Your task to perform on an android device: Search for sushi restaurants on Maps Image 0: 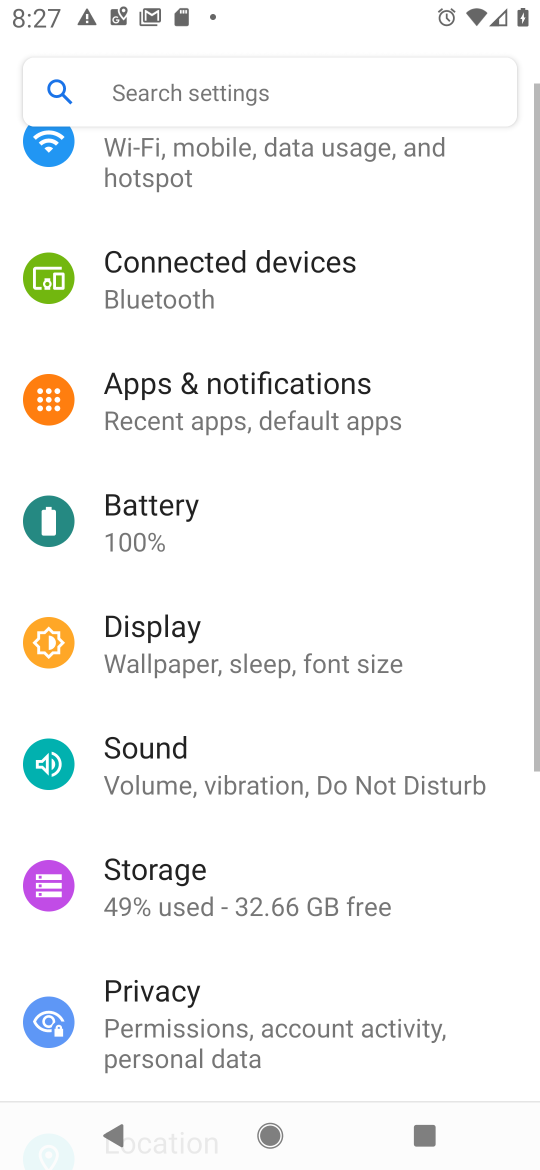
Step 0: drag from (498, 979) to (267, 324)
Your task to perform on an android device: Search for sushi restaurants on Maps Image 1: 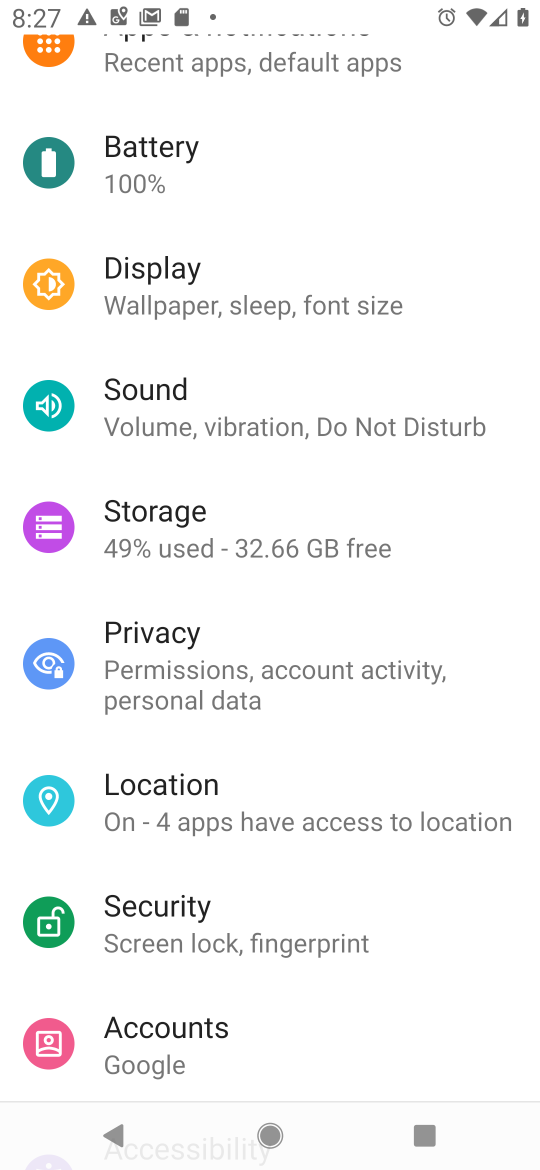
Step 1: press home button
Your task to perform on an android device: Search for sushi restaurants on Maps Image 2: 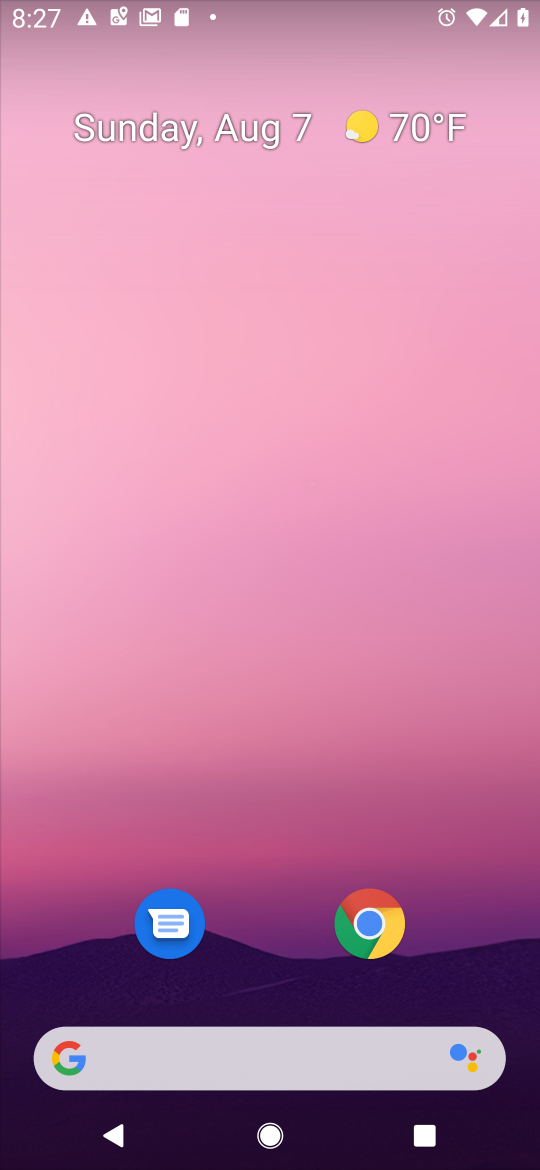
Step 2: drag from (478, 942) to (253, 31)
Your task to perform on an android device: Search for sushi restaurants on Maps Image 3: 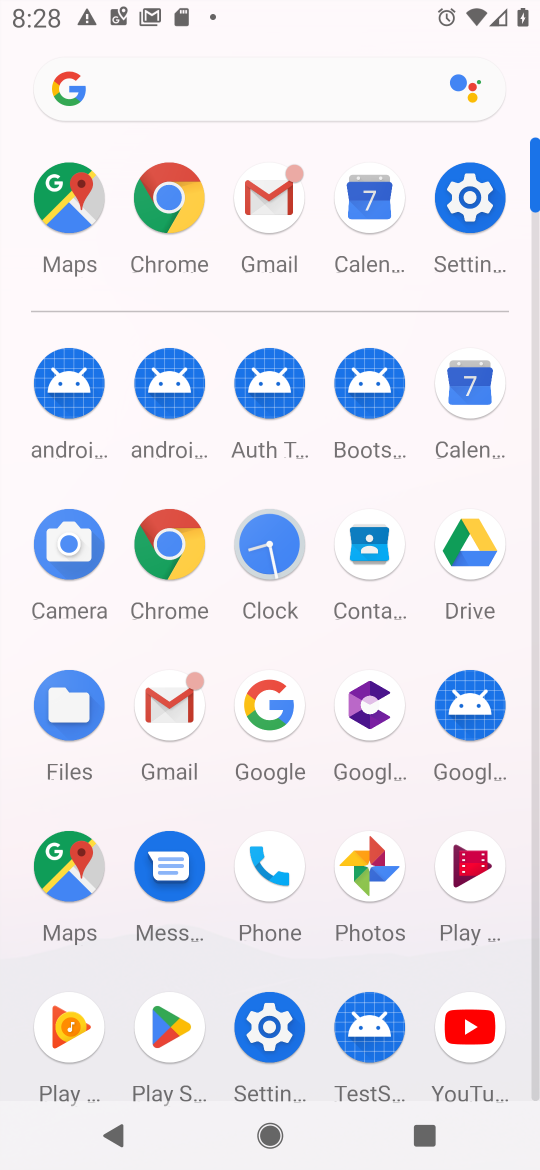
Step 3: click (78, 874)
Your task to perform on an android device: Search for sushi restaurants on Maps Image 4: 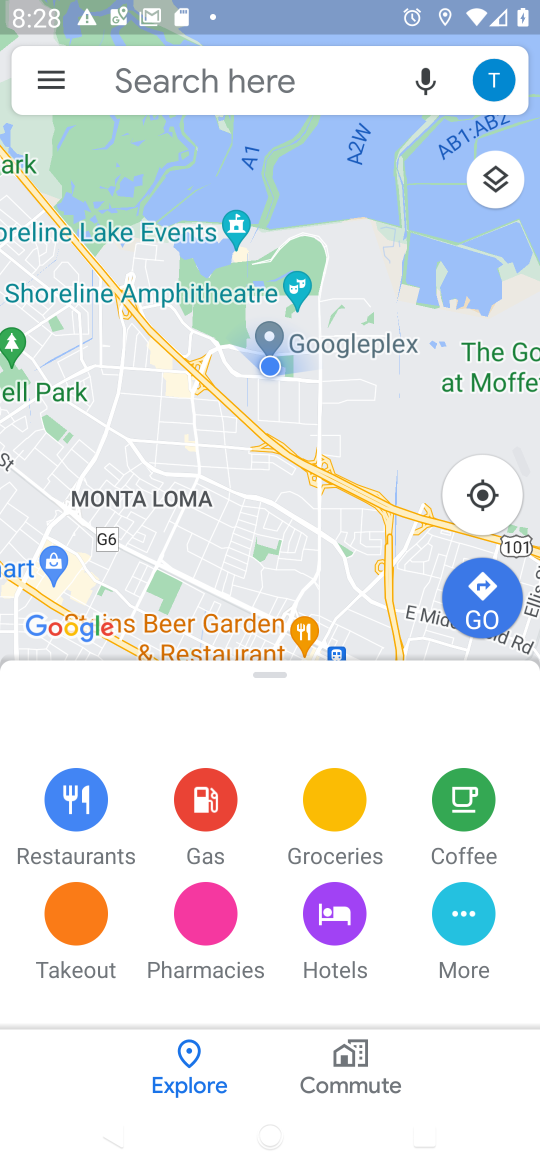
Step 4: click (194, 86)
Your task to perform on an android device: Search for sushi restaurants on Maps Image 5: 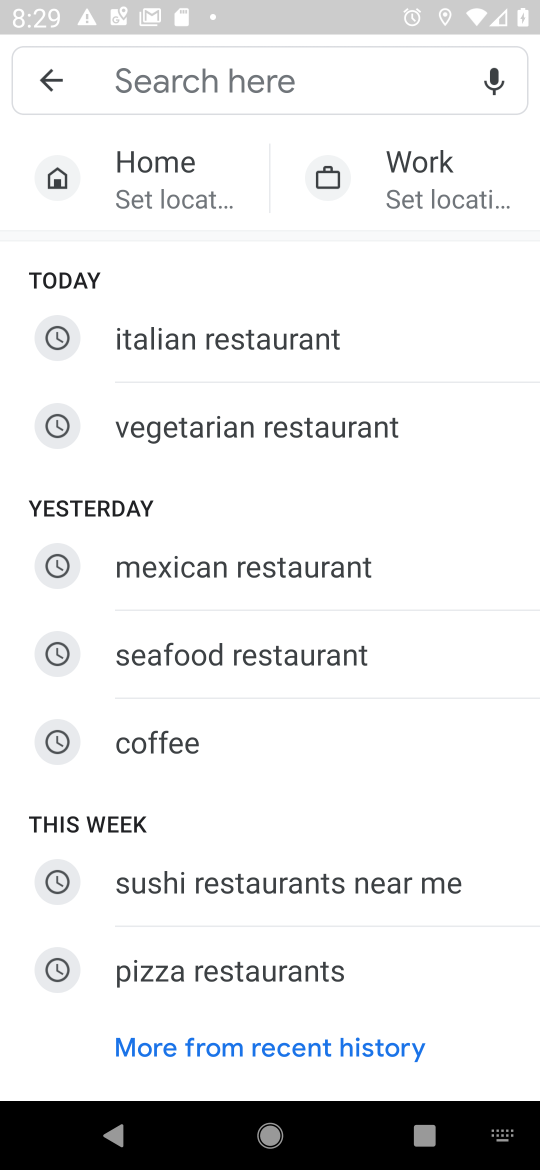
Step 5: type " sushi restaurants"
Your task to perform on an android device: Search for sushi restaurants on Maps Image 6: 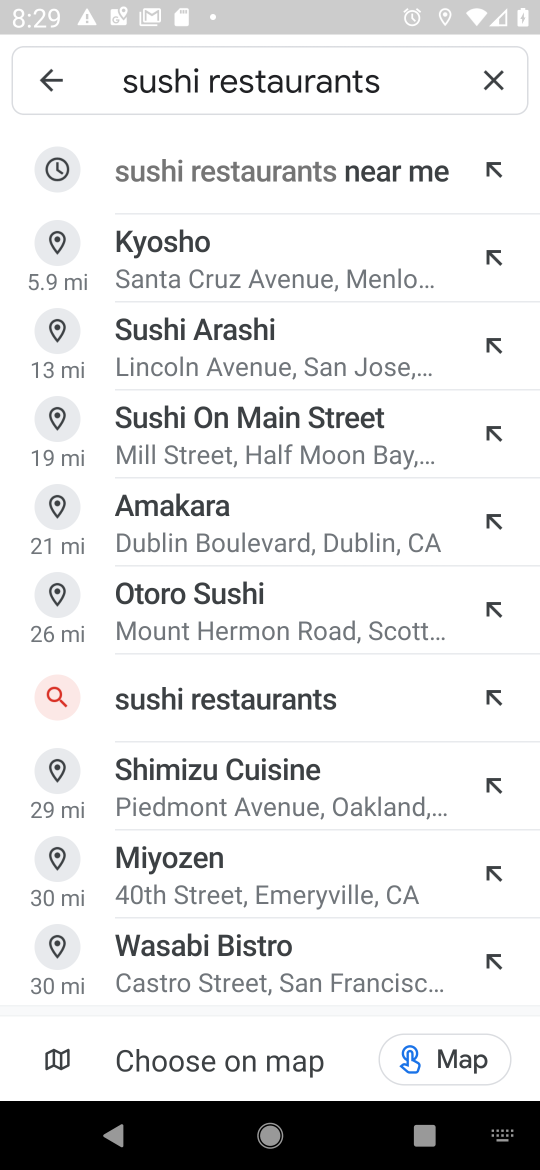
Step 6: click (187, 178)
Your task to perform on an android device: Search for sushi restaurants on Maps Image 7: 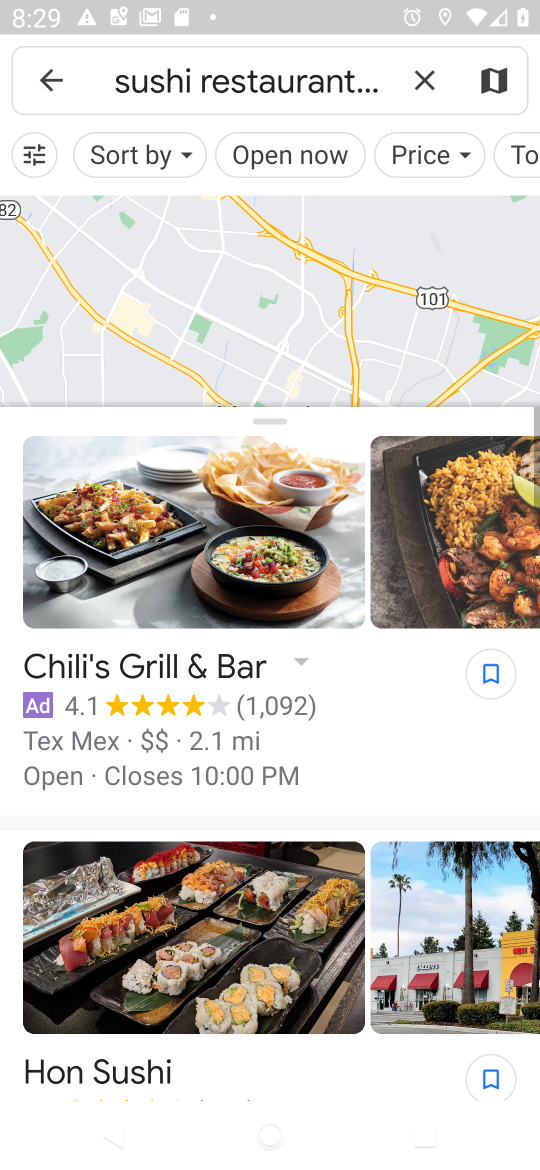
Step 7: task complete